Your task to perform on an android device: Show me popular games on the Play Store Image 0: 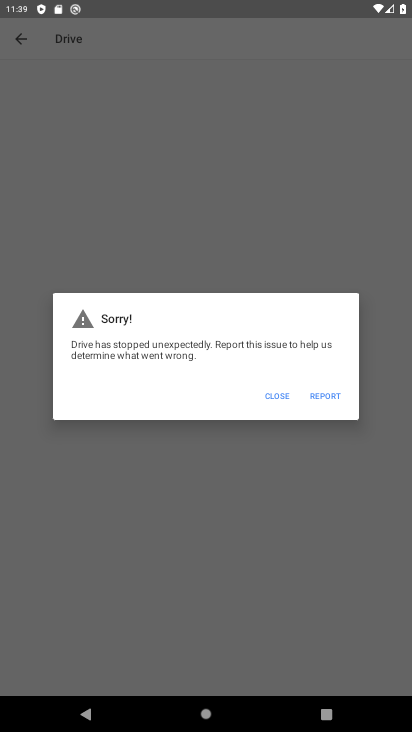
Step 0: press home button
Your task to perform on an android device: Show me popular games on the Play Store Image 1: 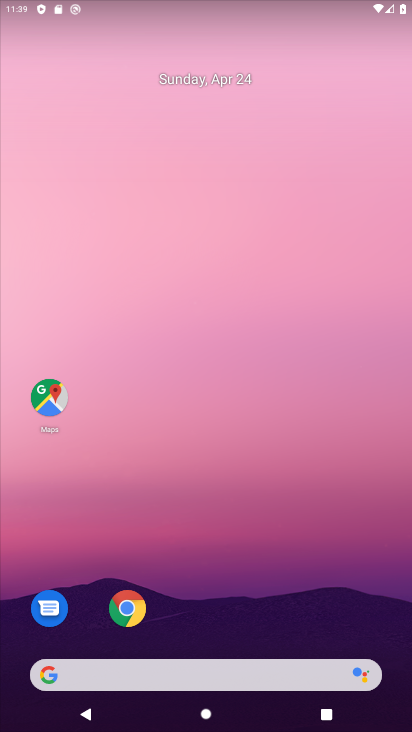
Step 1: drag from (226, 730) to (220, 73)
Your task to perform on an android device: Show me popular games on the Play Store Image 2: 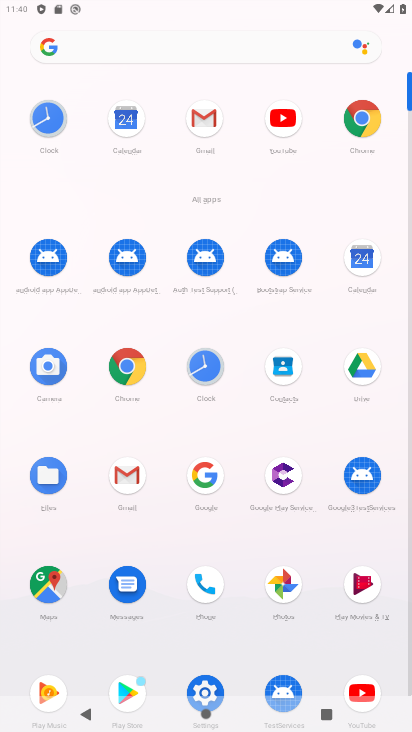
Step 2: click (124, 687)
Your task to perform on an android device: Show me popular games on the Play Store Image 3: 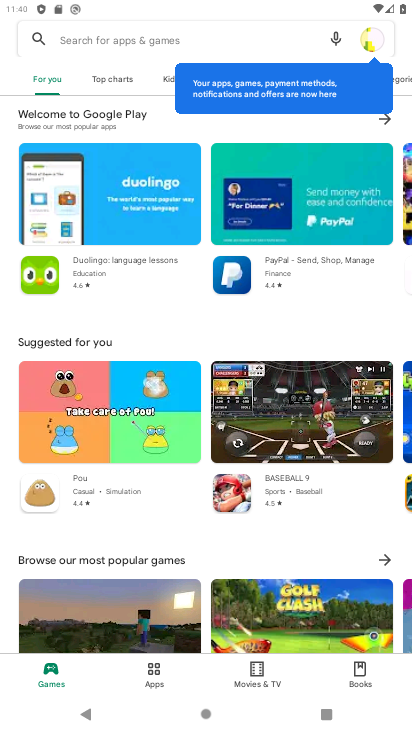
Step 3: click (383, 557)
Your task to perform on an android device: Show me popular games on the Play Store Image 4: 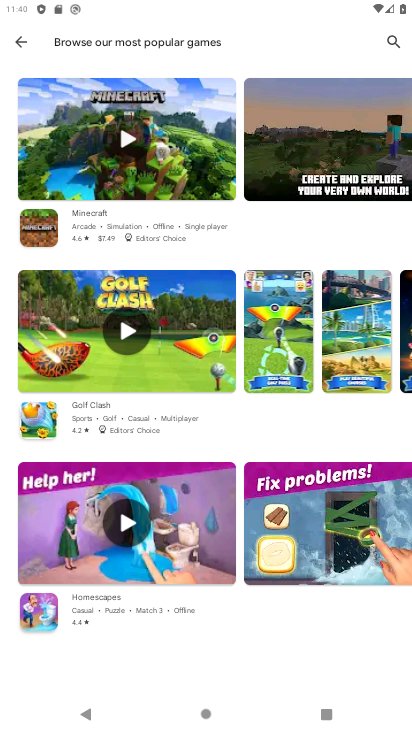
Step 4: task complete